Your task to perform on an android device: open app "Etsy: Buy & Sell Unique Items" (install if not already installed) and enter user name: "camp@inbox.com" and password: "unrelated" Image 0: 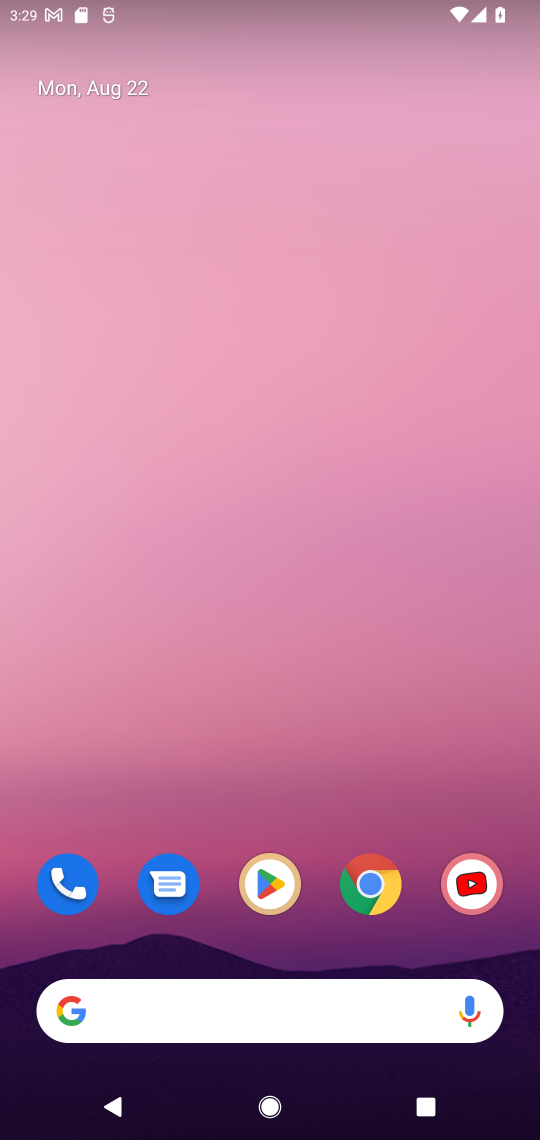
Step 0: click (269, 906)
Your task to perform on an android device: open app "Etsy: Buy & Sell Unique Items" (install if not already installed) and enter user name: "camp@inbox.com" and password: "unrelated" Image 1: 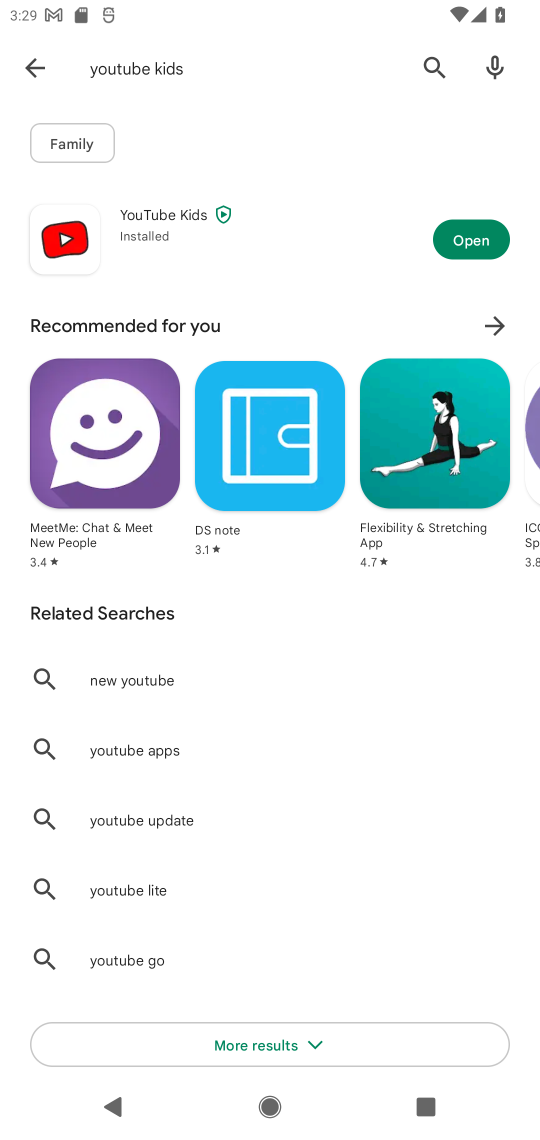
Step 1: click (201, 61)
Your task to perform on an android device: open app "Etsy: Buy & Sell Unique Items" (install if not already installed) and enter user name: "camp@inbox.com" and password: "unrelated" Image 2: 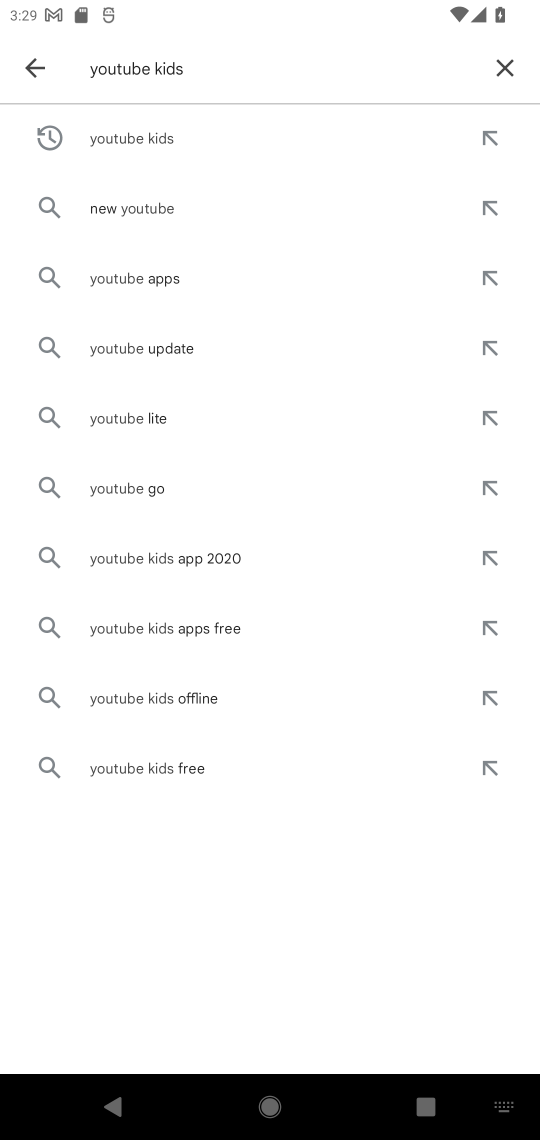
Step 2: click (501, 66)
Your task to perform on an android device: open app "Etsy: Buy & Sell Unique Items" (install if not already installed) and enter user name: "camp@inbox.com" and password: "unrelated" Image 3: 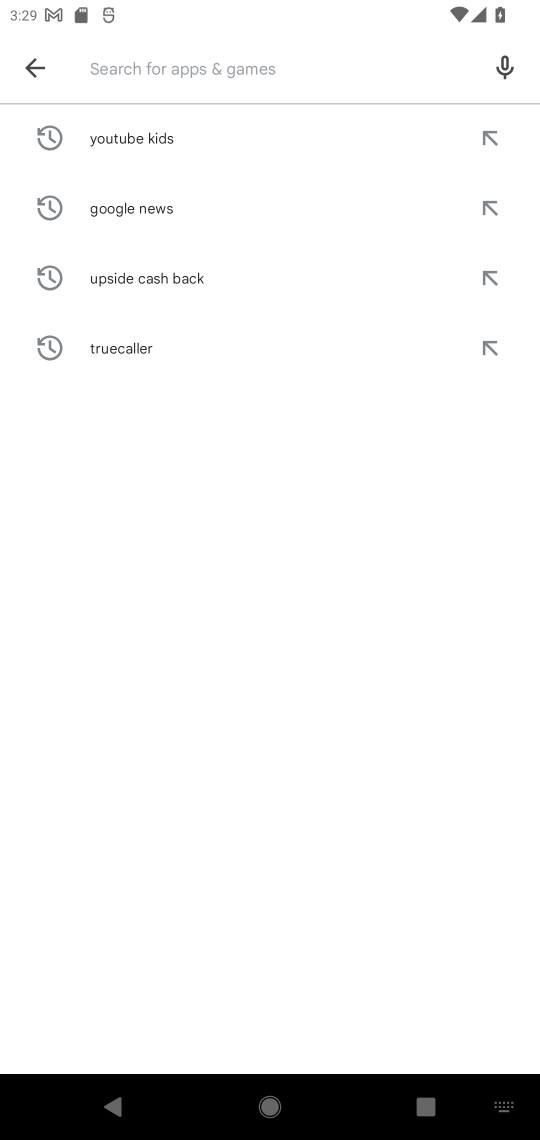
Step 3: type "Etsy"
Your task to perform on an android device: open app "Etsy: Buy & Sell Unique Items" (install if not already installed) and enter user name: "camp@inbox.com" and password: "unrelated" Image 4: 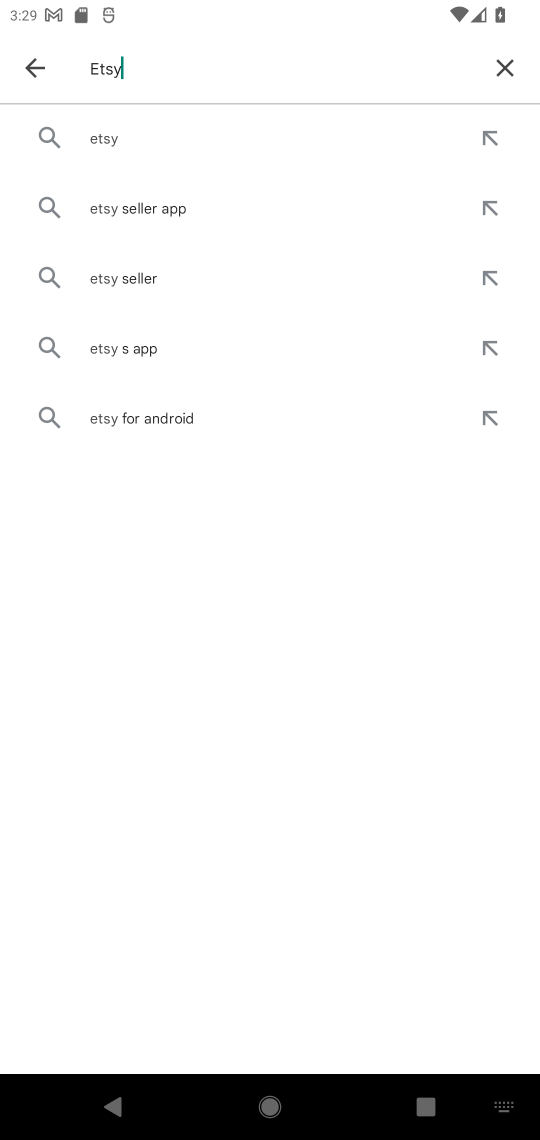
Step 4: click (153, 142)
Your task to perform on an android device: open app "Etsy: Buy & Sell Unique Items" (install if not already installed) and enter user name: "camp@inbox.com" and password: "unrelated" Image 5: 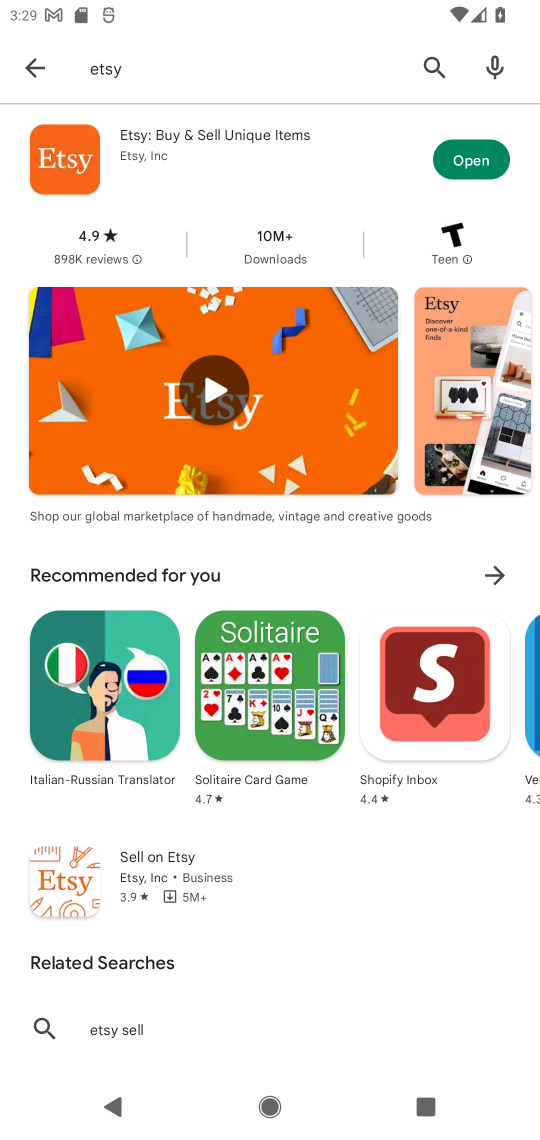
Step 5: click (470, 172)
Your task to perform on an android device: open app "Etsy: Buy & Sell Unique Items" (install if not already installed) and enter user name: "camp@inbox.com" and password: "unrelated" Image 6: 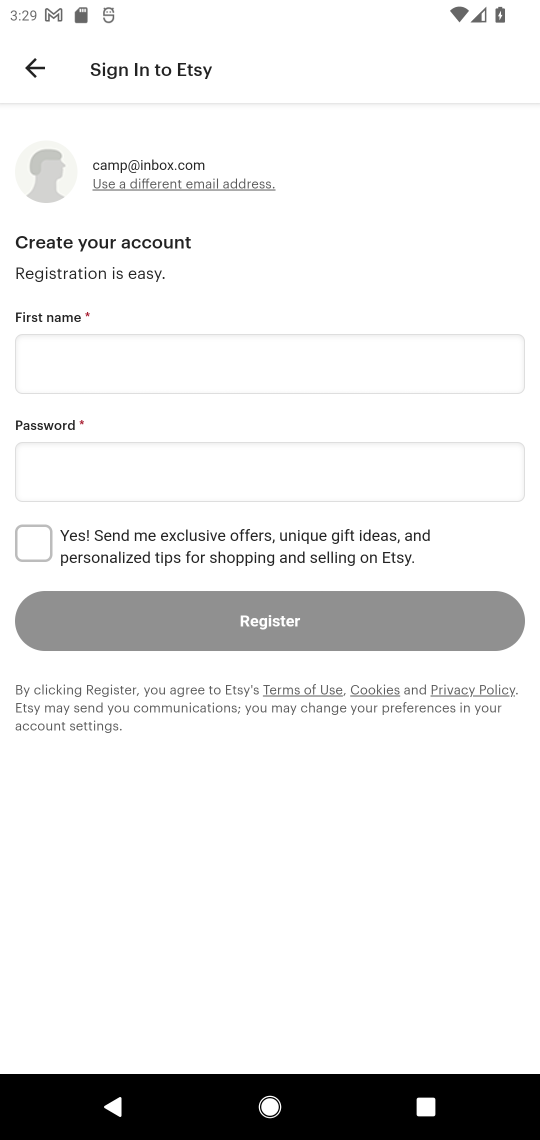
Step 6: click (155, 348)
Your task to perform on an android device: open app "Etsy: Buy & Sell Unique Items" (install if not already installed) and enter user name: "camp@inbox.com" and password: "unrelated" Image 7: 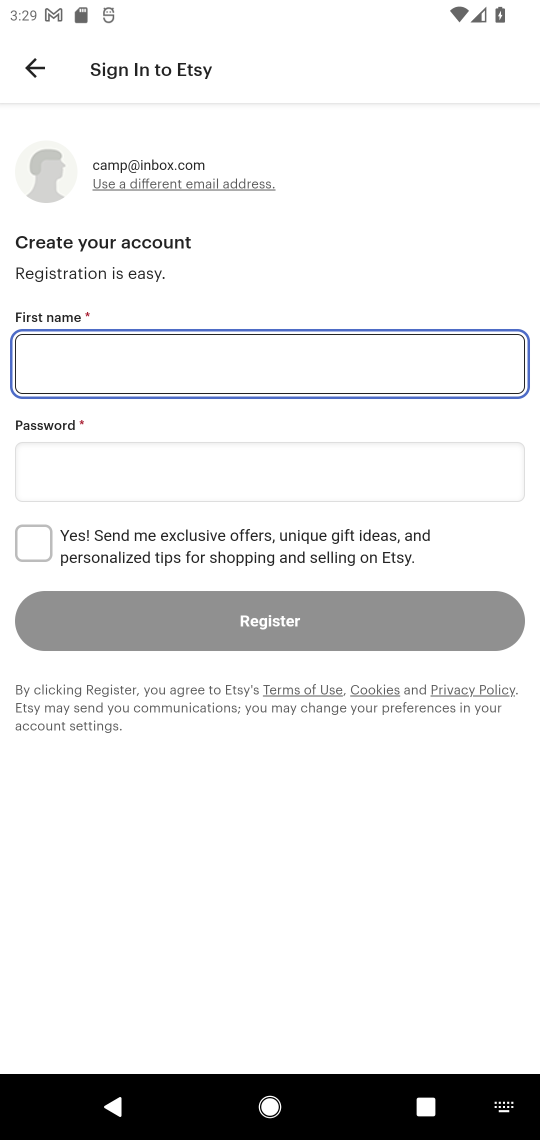
Step 7: type "camp@inbox.com"
Your task to perform on an android device: open app "Etsy: Buy & Sell Unique Items" (install if not already installed) and enter user name: "camp@inbox.com" and password: "unrelated" Image 8: 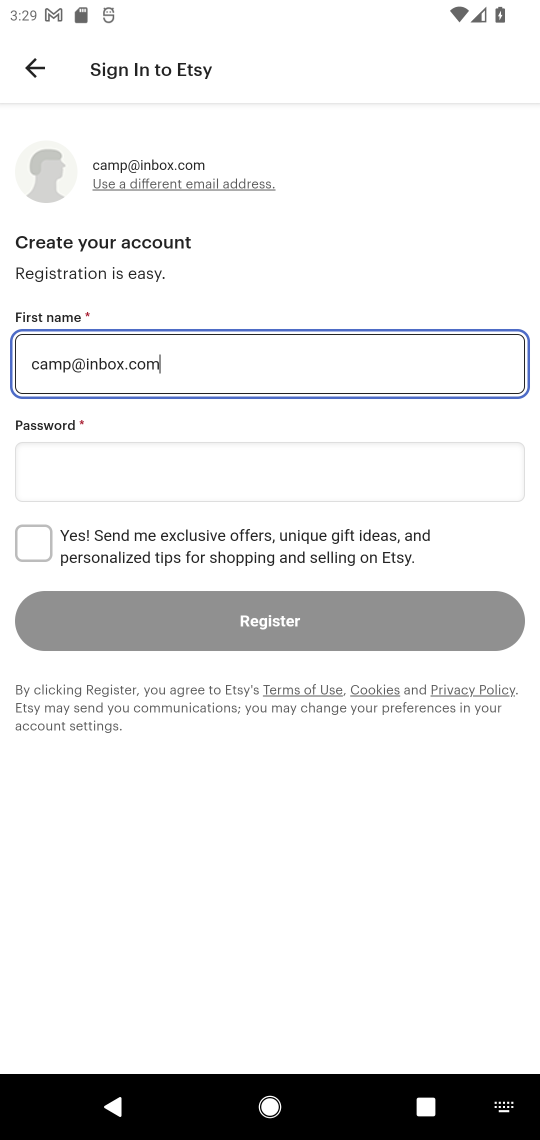
Step 8: click (114, 459)
Your task to perform on an android device: open app "Etsy: Buy & Sell Unique Items" (install if not already installed) and enter user name: "camp@inbox.com" and password: "unrelated" Image 9: 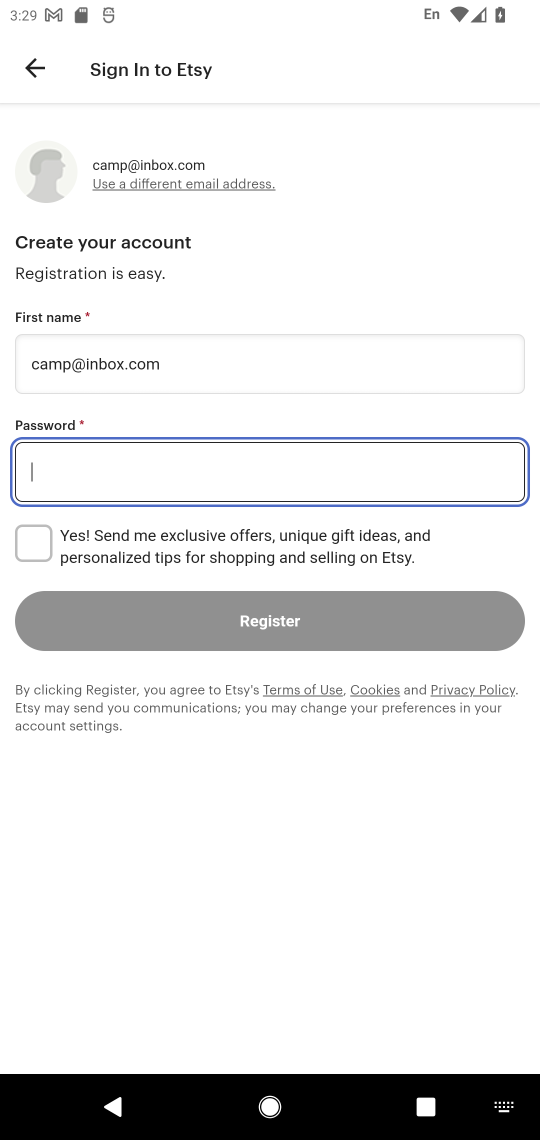
Step 9: type "unrelated"
Your task to perform on an android device: open app "Etsy: Buy & Sell Unique Items" (install if not already installed) and enter user name: "camp@inbox.com" and password: "unrelated" Image 10: 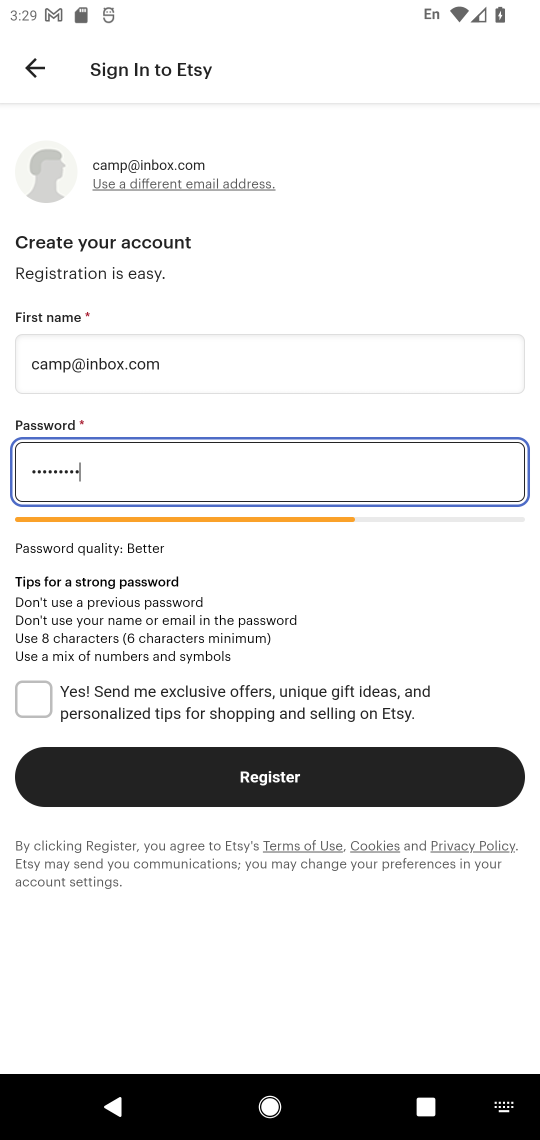
Step 10: click (21, 698)
Your task to perform on an android device: open app "Etsy: Buy & Sell Unique Items" (install if not already installed) and enter user name: "camp@inbox.com" and password: "unrelated" Image 11: 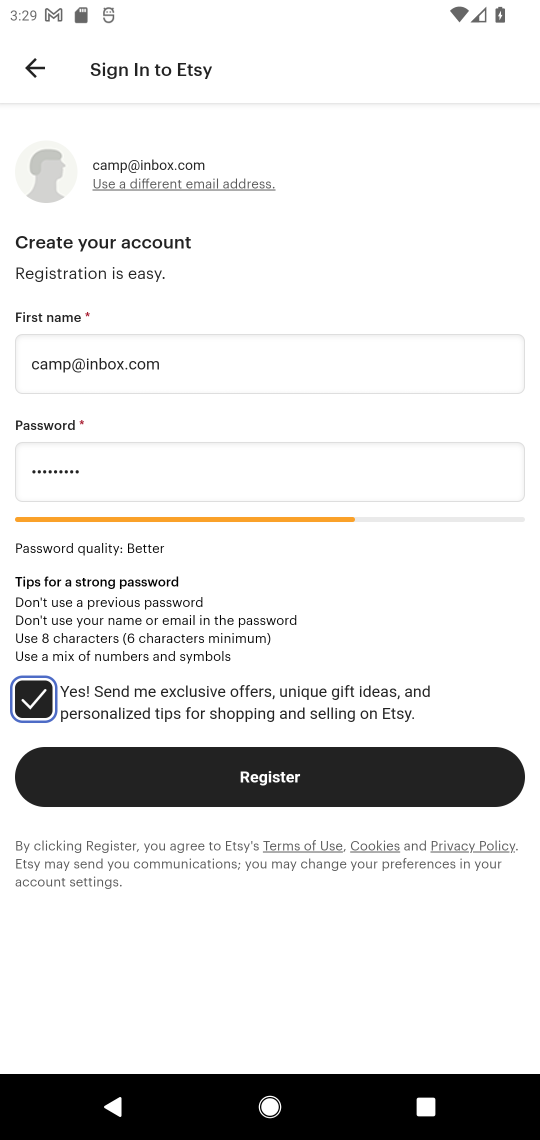
Step 11: click (327, 765)
Your task to perform on an android device: open app "Etsy: Buy & Sell Unique Items" (install if not already installed) and enter user name: "camp@inbox.com" and password: "unrelated" Image 12: 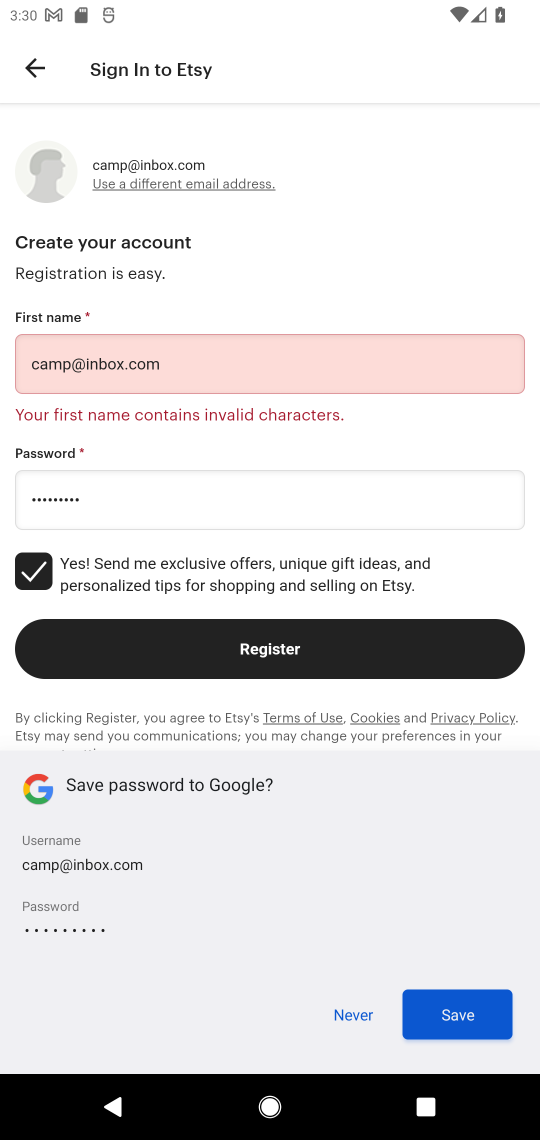
Step 12: click (339, 1004)
Your task to perform on an android device: open app "Etsy: Buy & Sell Unique Items" (install if not already installed) and enter user name: "camp@inbox.com" and password: "unrelated" Image 13: 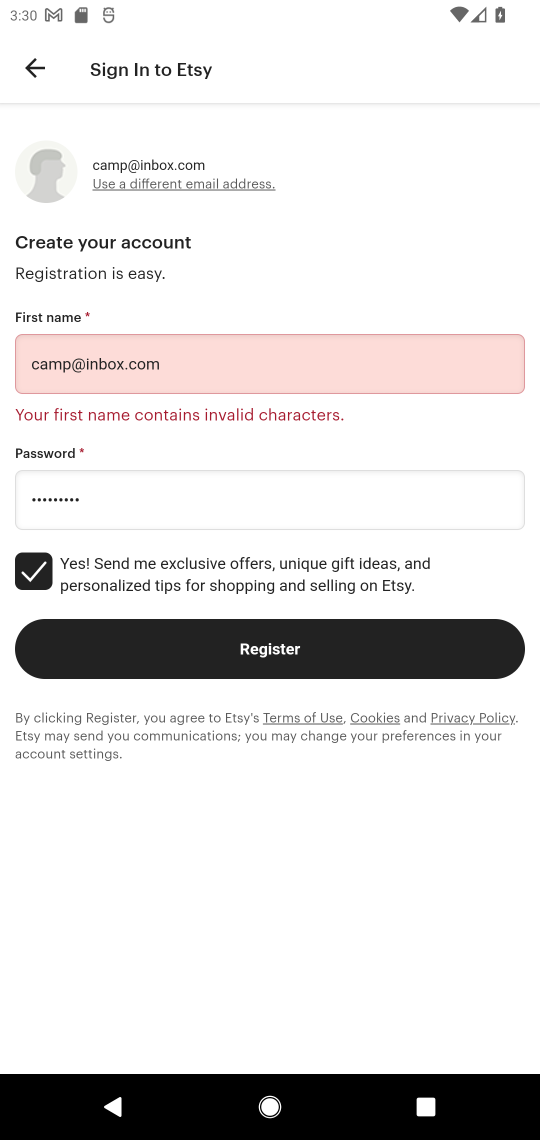
Step 13: task complete